Your task to perform on an android device: change keyboard looks Image 0: 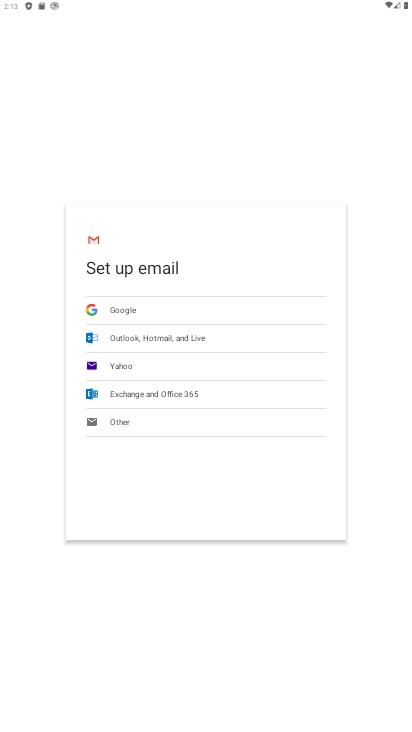
Step 0: press home button
Your task to perform on an android device: change keyboard looks Image 1: 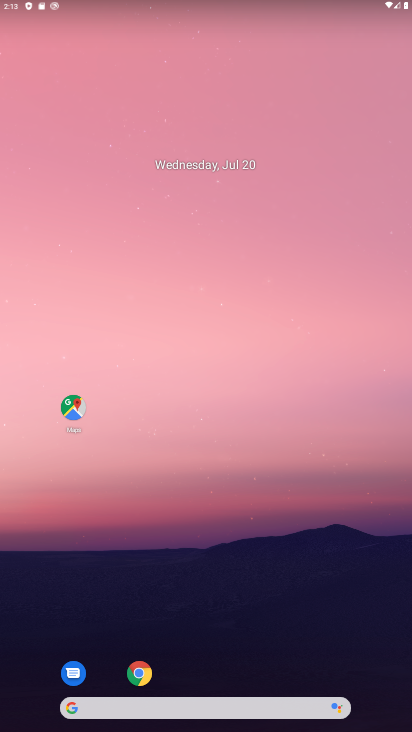
Step 1: drag from (195, 677) to (144, 80)
Your task to perform on an android device: change keyboard looks Image 2: 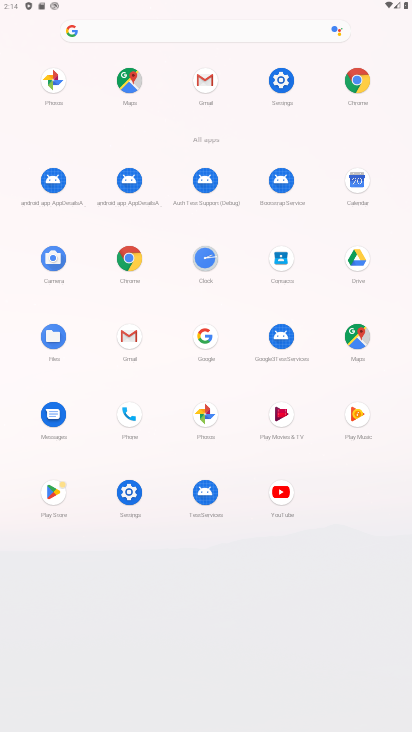
Step 2: click (134, 490)
Your task to perform on an android device: change keyboard looks Image 3: 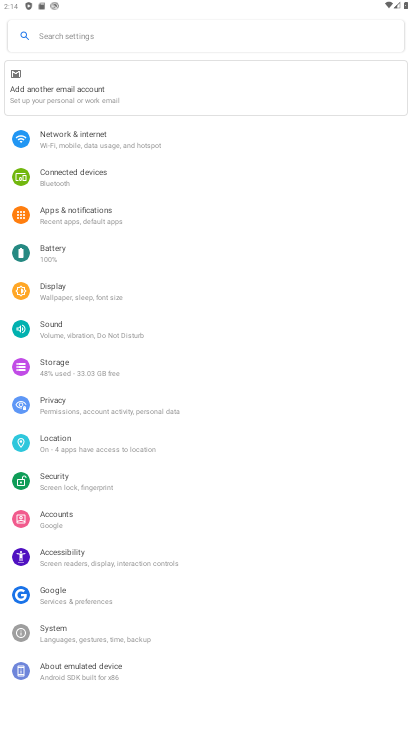
Step 3: click (56, 642)
Your task to perform on an android device: change keyboard looks Image 4: 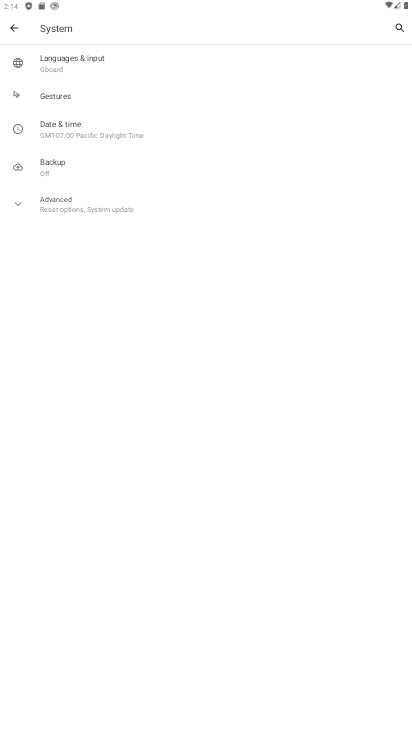
Step 4: click (58, 53)
Your task to perform on an android device: change keyboard looks Image 5: 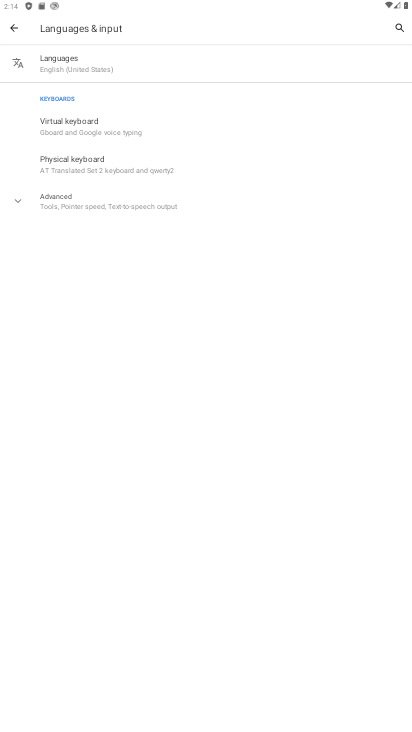
Step 5: click (90, 119)
Your task to perform on an android device: change keyboard looks Image 6: 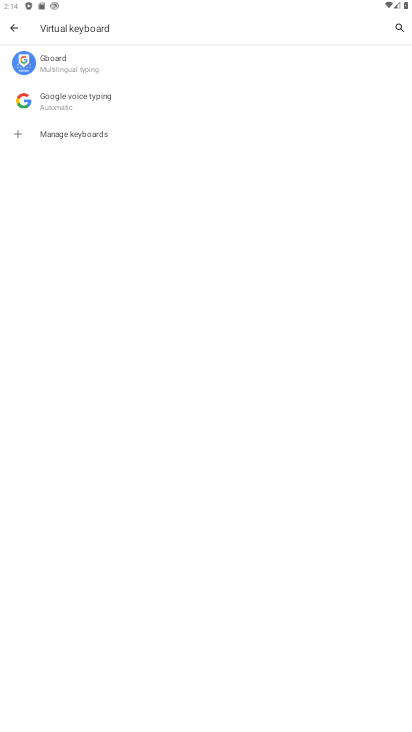
Step 6: click (191, 62)
Your task to perform on an android device: change keyboard looks Image 7: 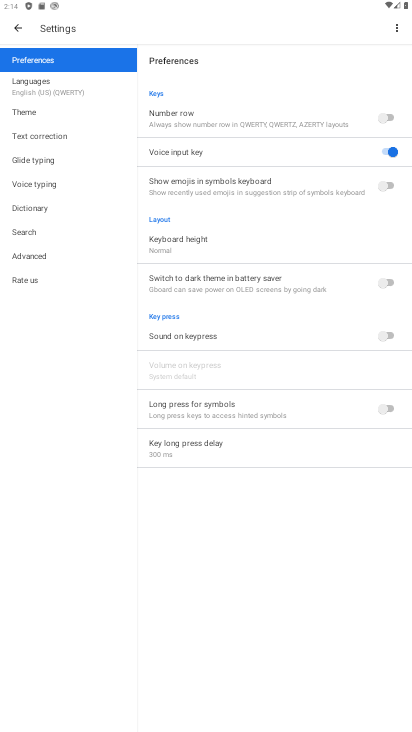
Step 7: click (42, 105)
Your task to perform on an android device: change keyboard looks Image 8: 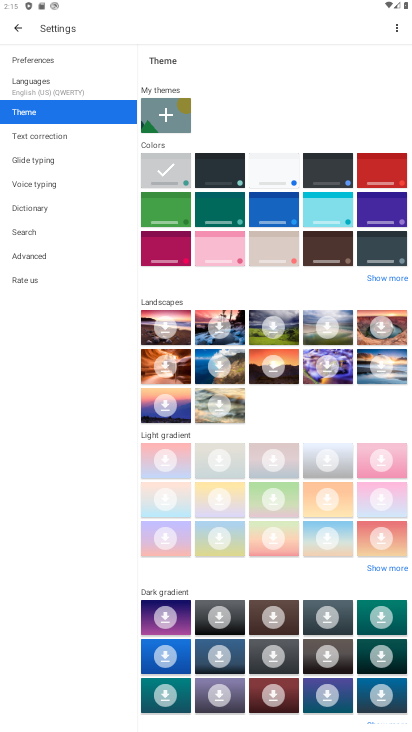
Step 8: click (213, 161)
Your task to perform on an android device: change keyboard looks Image 9: 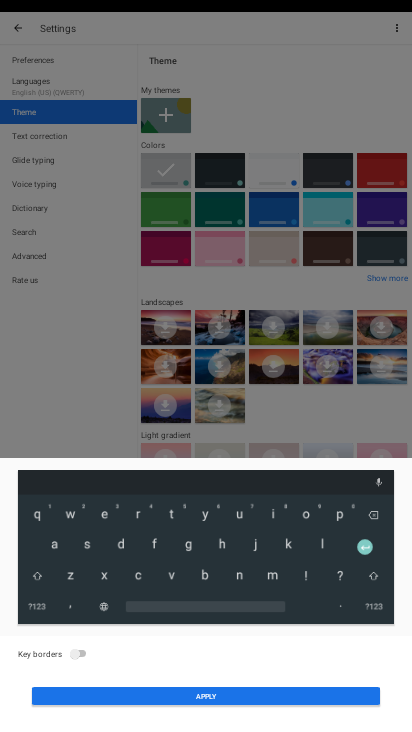
Step 9: click (134, 703)
Your task to perform on an android device: change keyboard looks Image 10: 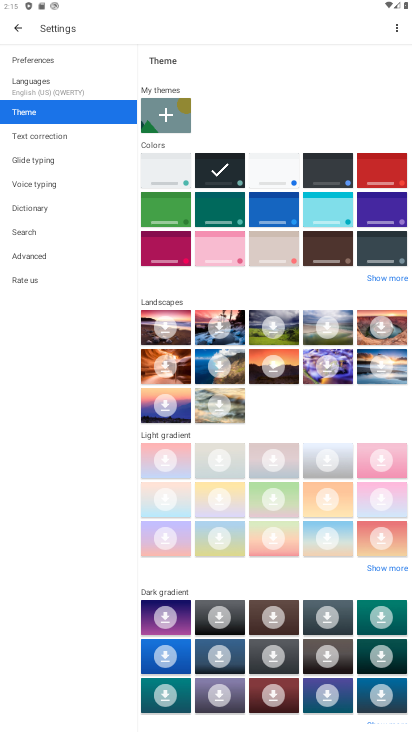
Step 10: task complete